Your task to perform on an android device: turn on priority inbox in the gmail app Image 0: 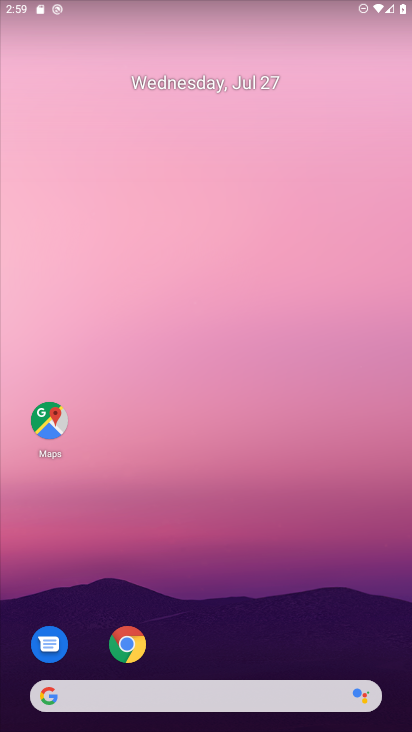
Step 0: drag from (230, 673) to (241, 54)
Your task to perform on an android device: turn on priority inbox in the gmail app Image 1: 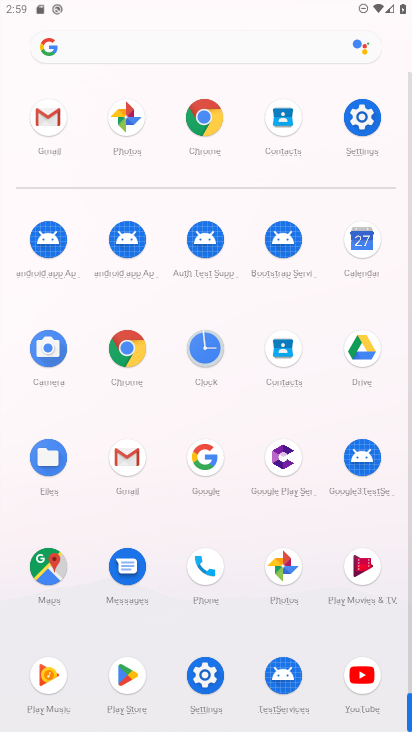
Step 1: click (128, 469)
Your task to perform on an android device: turn on priority inbox in the gmail app Image 2: 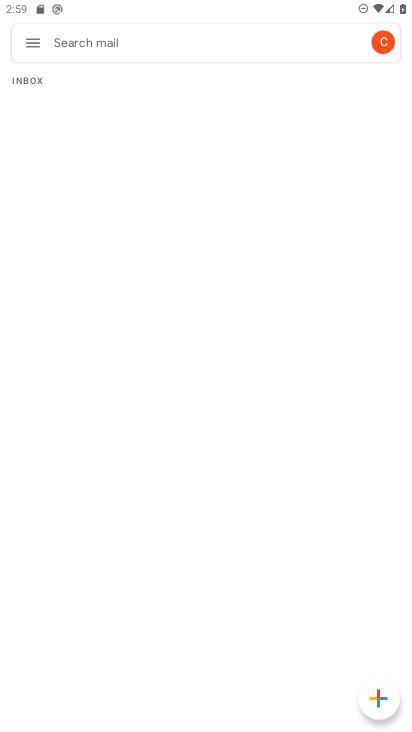
Step 2: click (35, 46)
Your task to perform on an android device: turn on priority inbox in the gmail app Image 3: 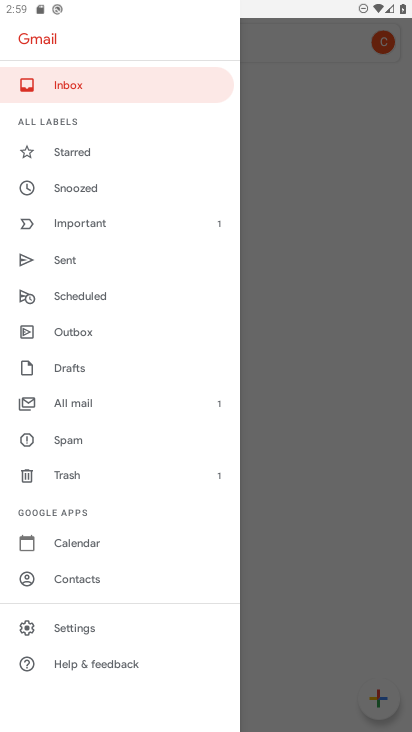
Step 3: click (75, 624)
Your task to perform on an android device: turn on priority inbox in the gmail app Image 4: 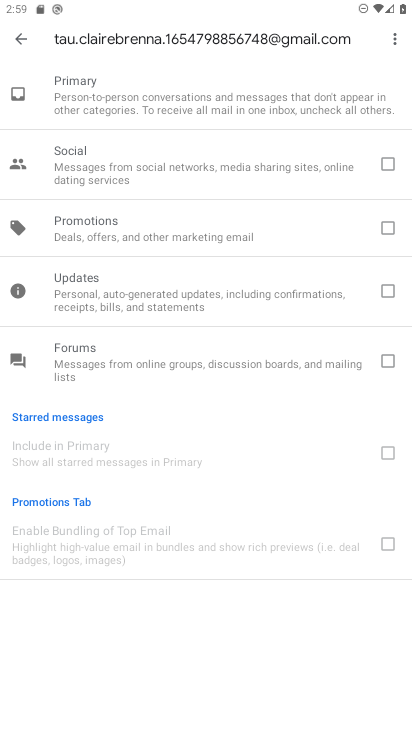
Step 4: click (22, 43)
Your task to perform on an android device: turn on priority inbox in the gmail app Image 5: 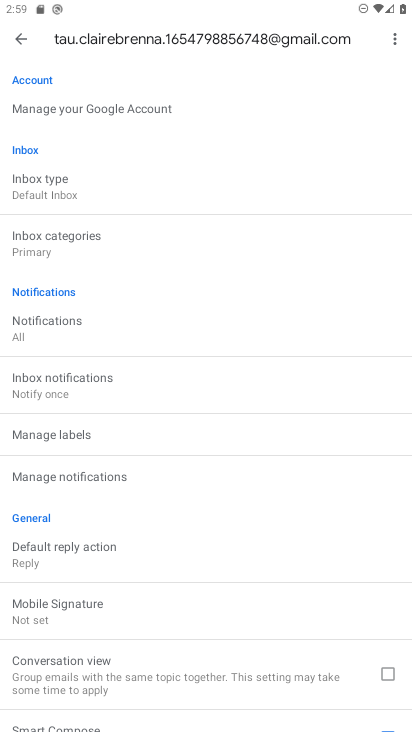
Step 5: click (65, 189)
Your task to perform on an android device: turn on priority inbox in the gmail app Image 6: 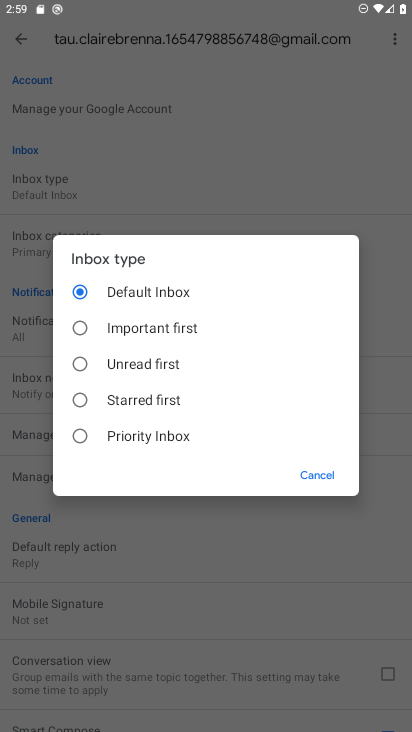
Step 6: click (128, 427)
Your task to perform on an android device: turn on priority inbox in the gmail app Image 7: 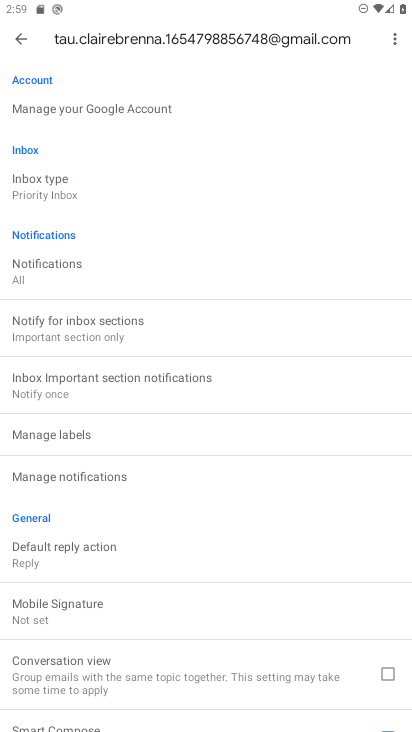
Step 7: task complete